Your task to perform on an android device: open app "Booking.com: Hotels and more" Image 0: 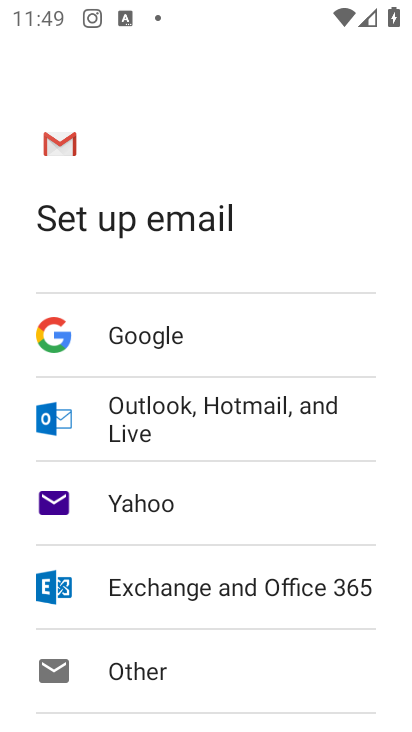
Step 0: press back button
Your task to perform on an android device: open app "Booking.com: Hotels and more" Image 1: 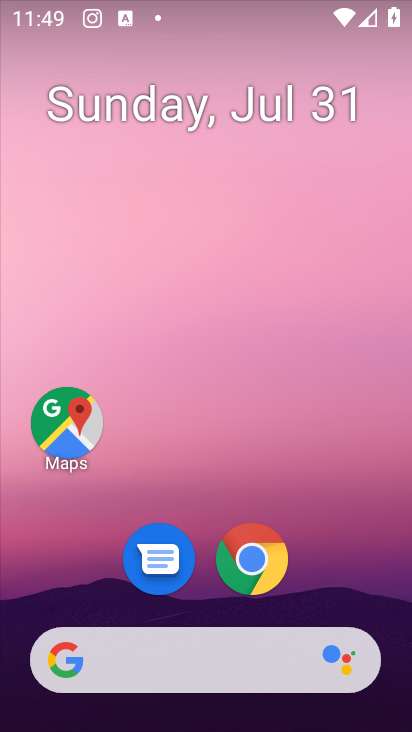
Step 1: drag from (87, 590) to (180, 124)
Your task to perform on an android device: open app "Booking.com: Hotels and more" Image 2: 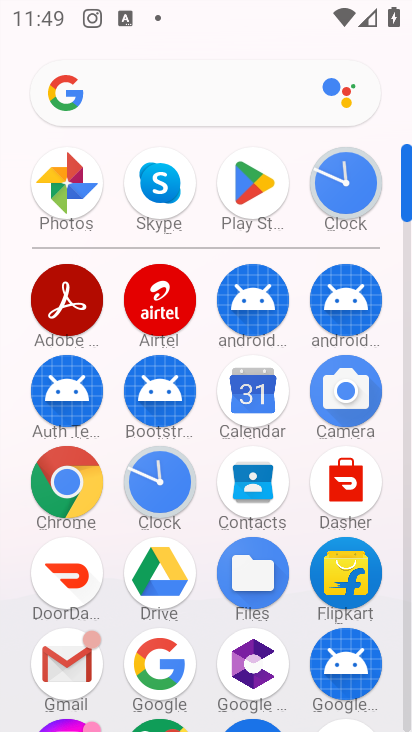
Step 2: click (242, 176)
Your task to perform on an android device: open app "Booking.com: Hotels and more" Image 3: 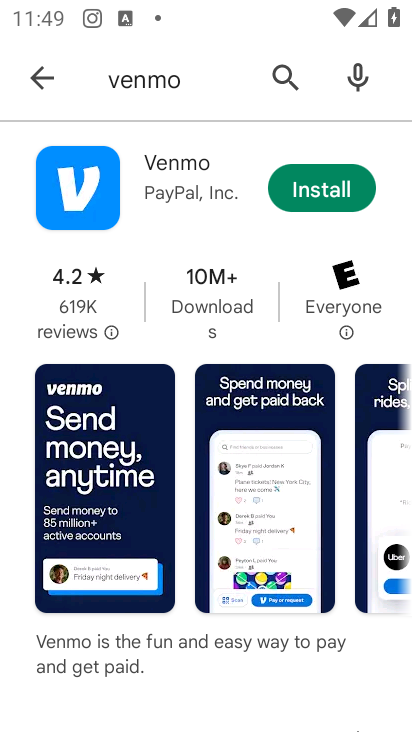
Step 3: click (269, 74)
Your task to perform on an android device: open app "Booking.com: Hotels and more" Image 4: 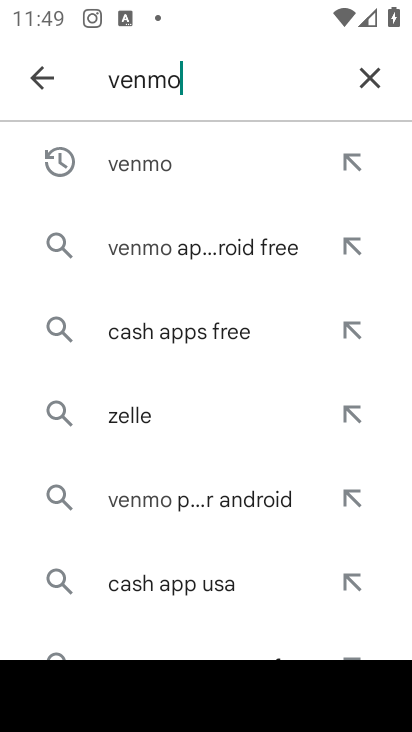
Step 4: click (368, 65)
Your task to perform on an android device: open app "Booking.com: Hotels and more" Image 5: 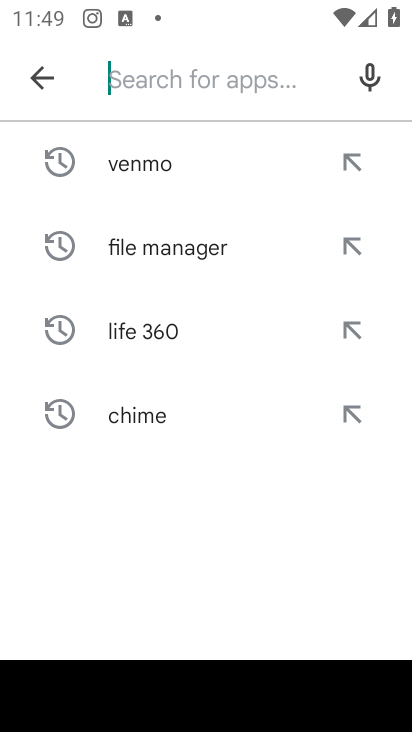
Step 5: click (141, 84)
Your task to perform on an android device: open app "Booking.com: Hotels and more" Image 6: 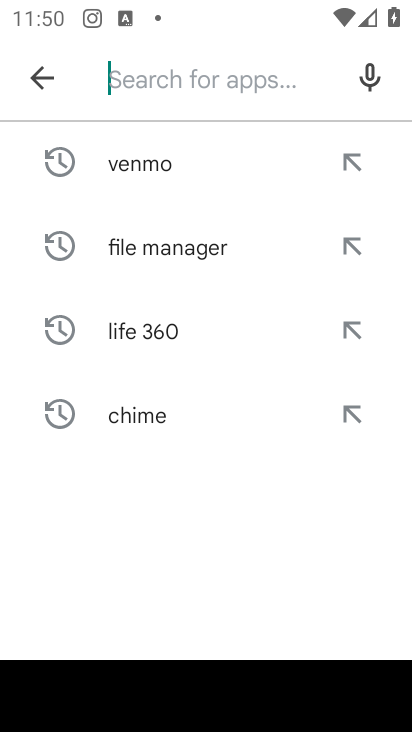
Step 6: type "booking .com"
Your task to perform on an android device: open app "Booking.com: Hotels and more" Image 7: 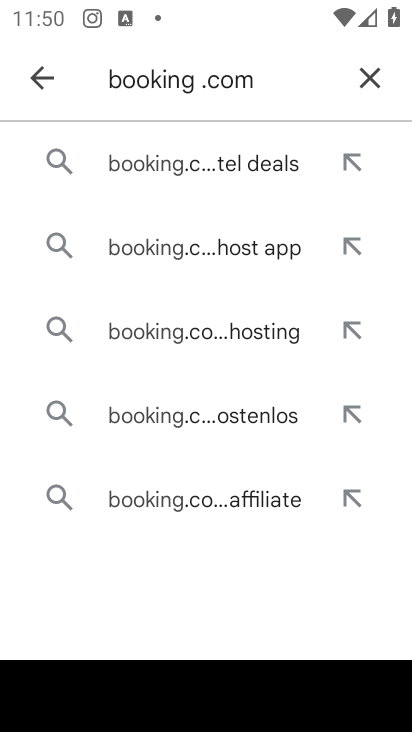
Step 7: click (194, 170)
Your task to perform on an android device: open app "Booking.com: Hotels and more" Image 8: 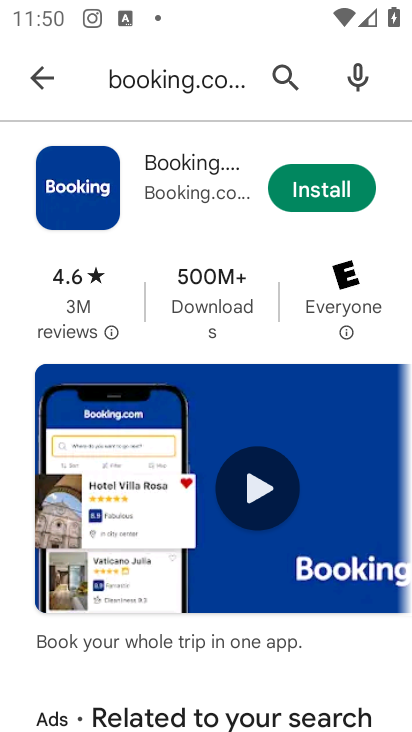
Step 8: task complete